Your task to perform on an android device: show emergency info Image 0: 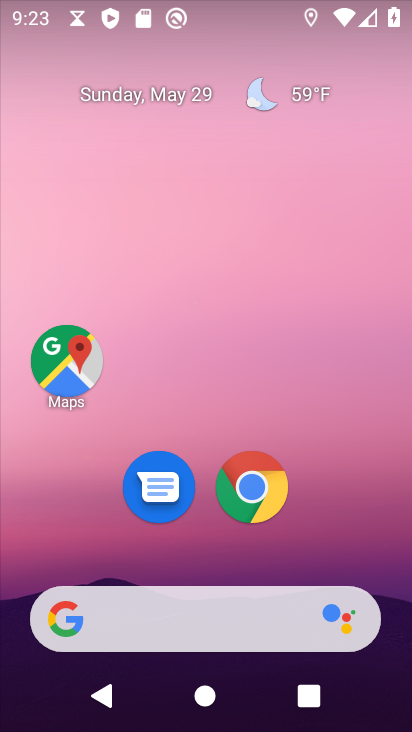
Step 0: drag from (322, 557) to (255, 130)
Your task to perform on an android device: show emergency info Image 1: 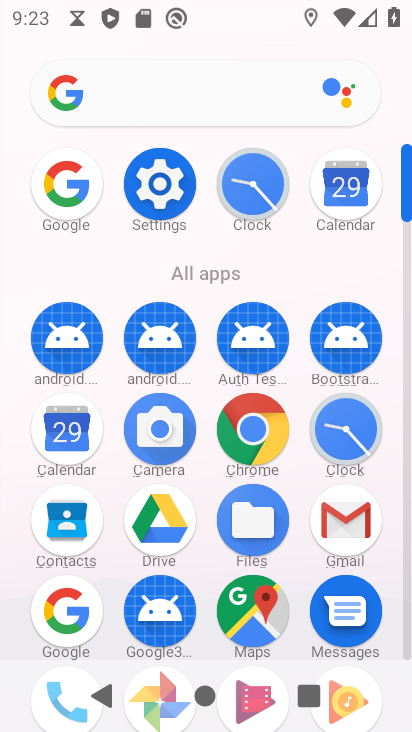
Step 1: drag from (296, 490) to (303, 279)
Your task to perform on an android device: show emergency info Image 2: 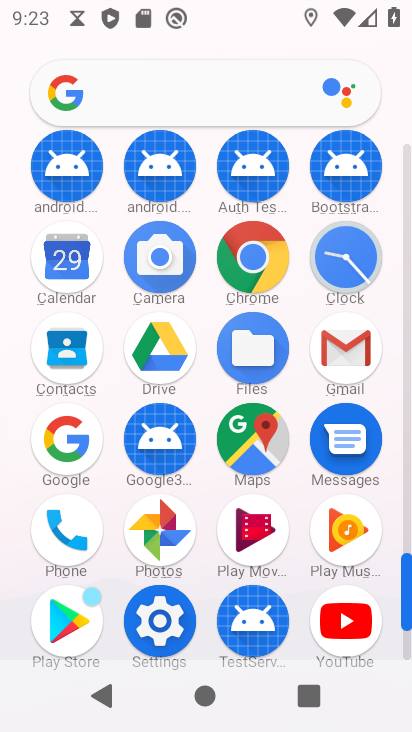
Step 2: drag from (203, 499) to (206, 313)
Your task to perform on an android device: show emergency info Image 3: 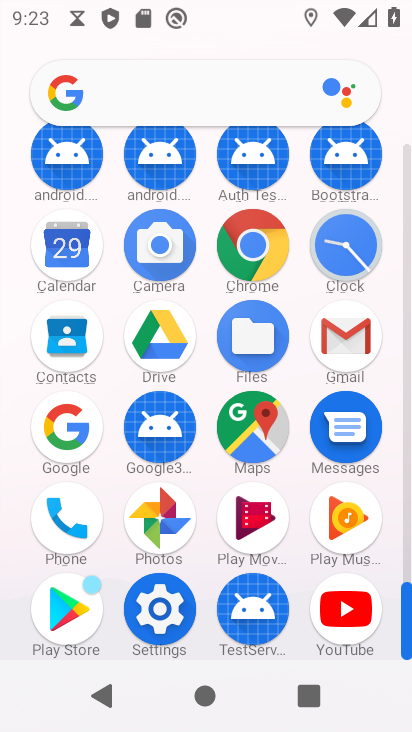
Step 3: click (159, 604)
Your task to perform on an android device: show emergency info Image 4: 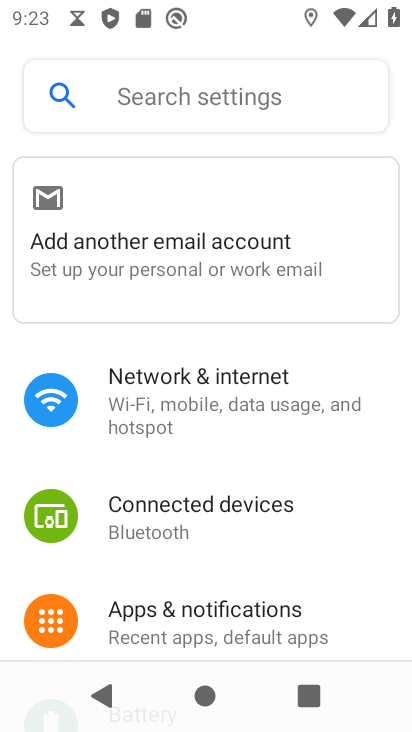
Step 4: drag from (185, 567) to (259, 414)
Your task to perform on an android device: show emergency info Image 5: 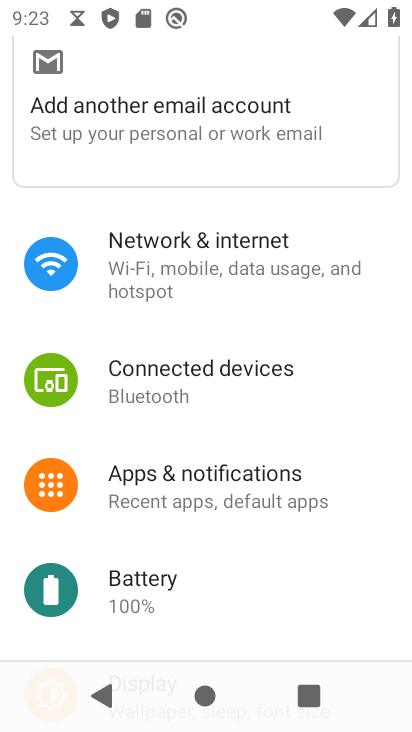
Step 5: drag from (166, 543) to (269, 381)
Your task to perform on an android device: show emergency info Image 6: 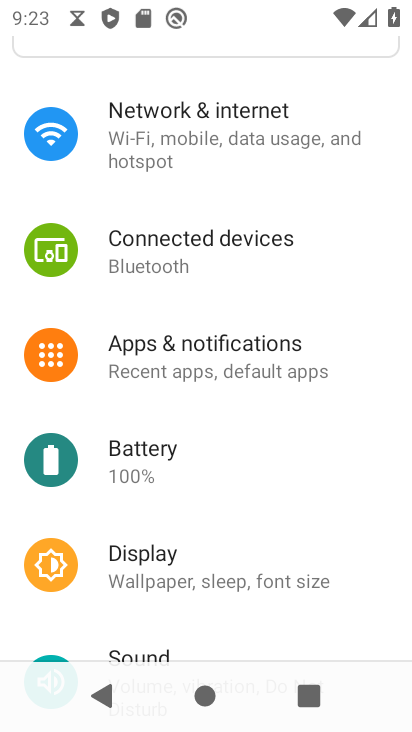
Step 6: drag from (163, 504) to (266, 358)
Your task to perform on an android device: show emergency info Image 7: 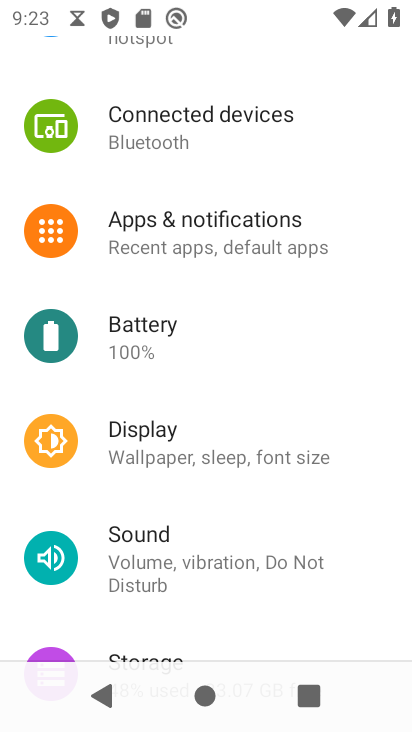
Step 7: drag from (162, 508) to (274, 360)
Your task to perform on an android device: show emergency info Image 8: 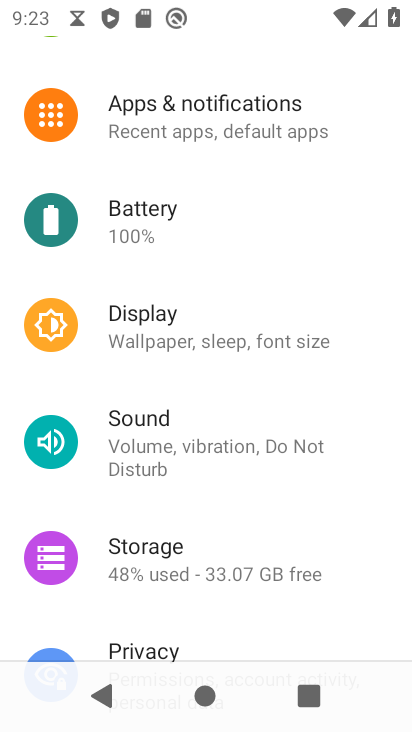
Step 8: drag from (121, 513) to (248, 354)
Your task to perform on an android device: show emergency info Image 9: 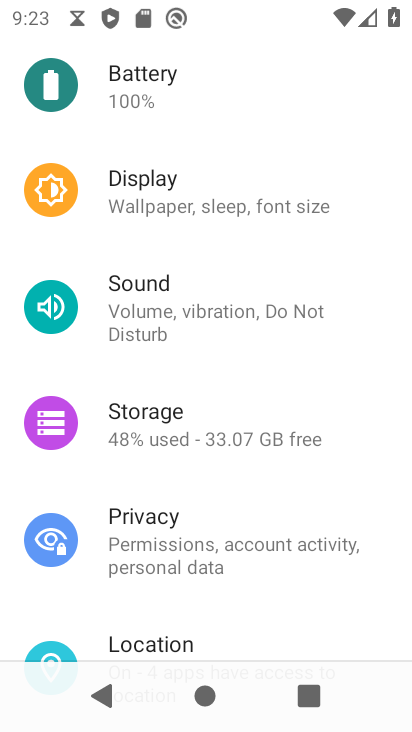
Step 9: drag from (132, 487) to (237, 350)
Your task to perform on an android device: show emergency info Image 10: 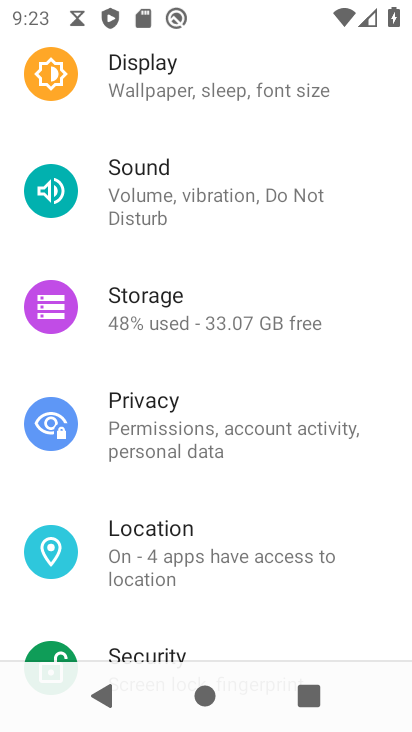
Step 10: drag from (121, 502) to (237, 374)
Your task to perform on an android device: show emergency info Image 11: 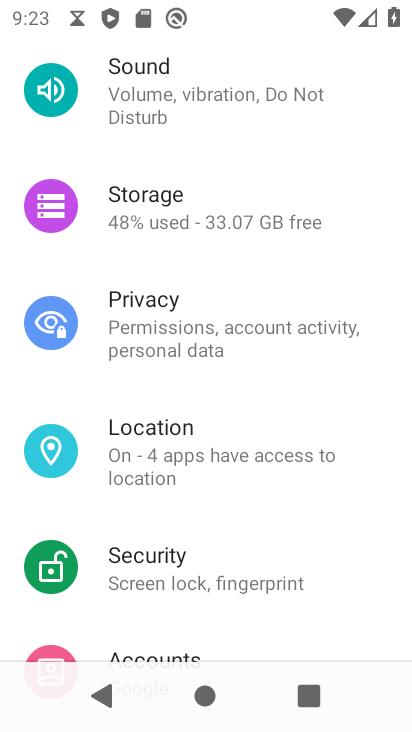
Step 11: drag from (105, 515) to (226, 366)
Your task to perform on an android device: show emergency info Image 12: 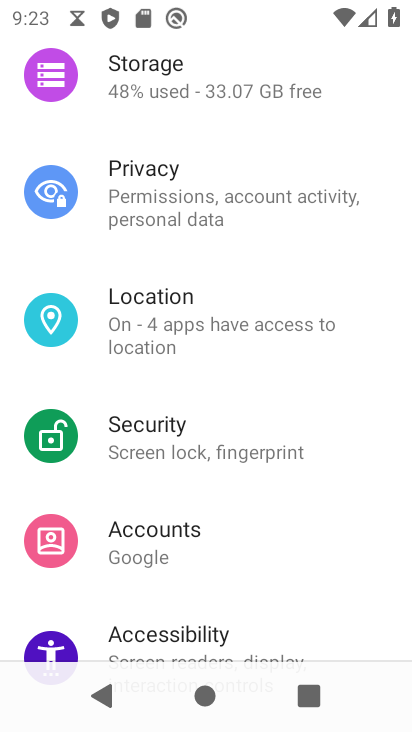
Step 12: drag from (107, 496) to (240, 364)
Your task to perform on an android device: show emergency info Image 13: 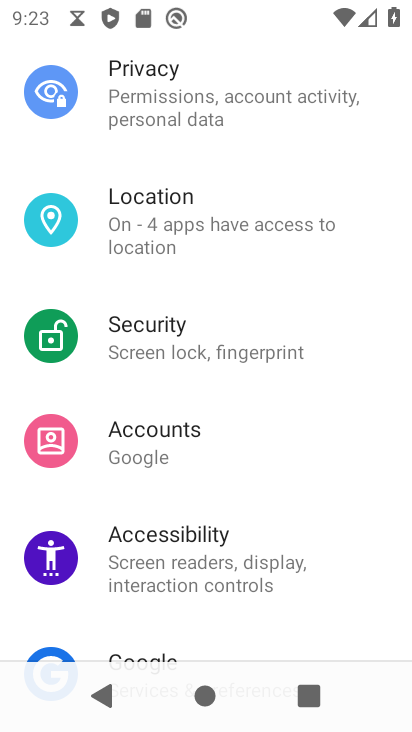
Step 13: drag from (115, 497) to (255, 347)
Your task to perform on an android device: show emergency info Image 14: 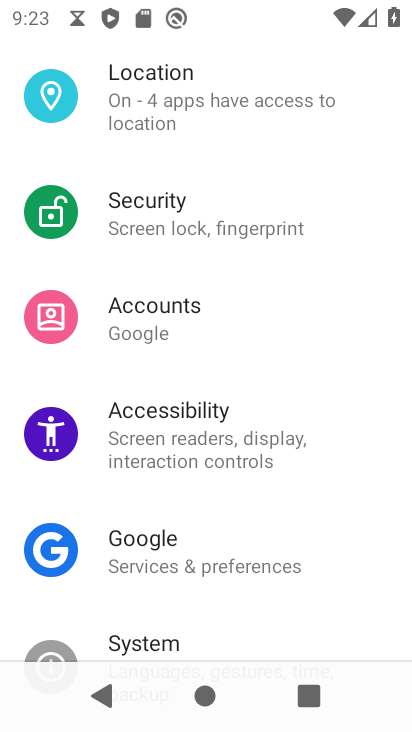
Step 14: drag from (109, 514) to (262, 353)
Your task to perform on an android device: show emergency info Image 15: 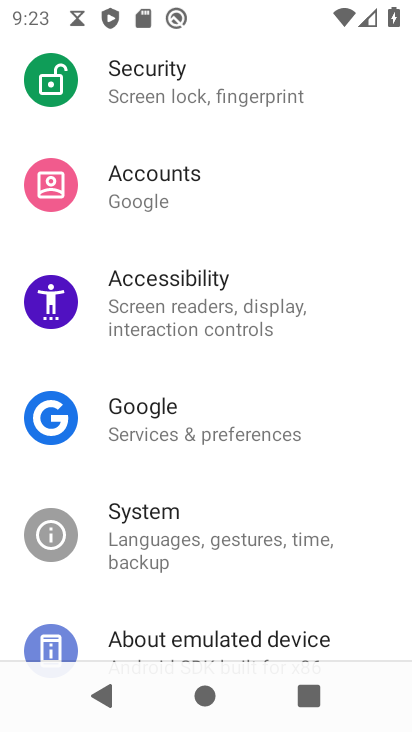
Step 15: drag from (145, 478) to (271, 331)
Your task to perform on an android device: show emergency info Image 16: 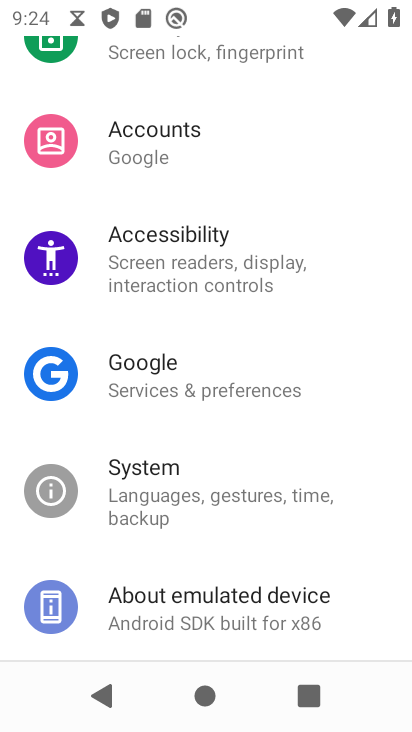
Step 16: click (184, 595)
Your task to perform on an android device: show emergency info Image 17: 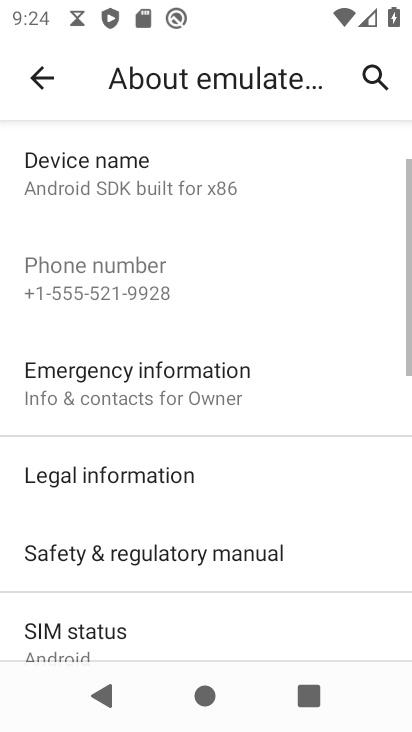
Step 17: click (147, 394)
Your task to perform on an android device: show emergency info Image 18: 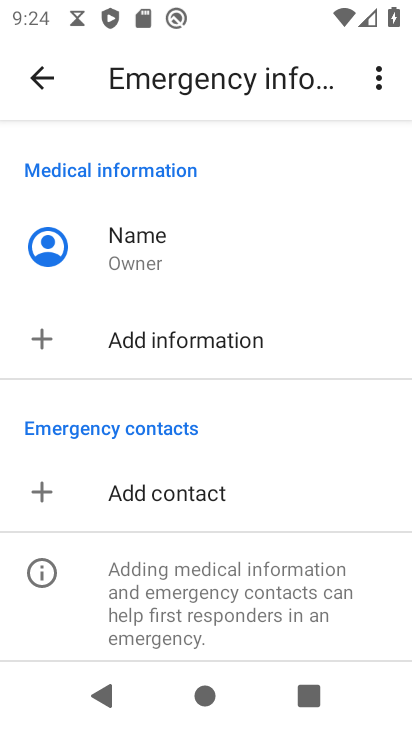
Step 18: task complete